Your task to perform on an android device: make emails show in primary in the gmail app Image 0: 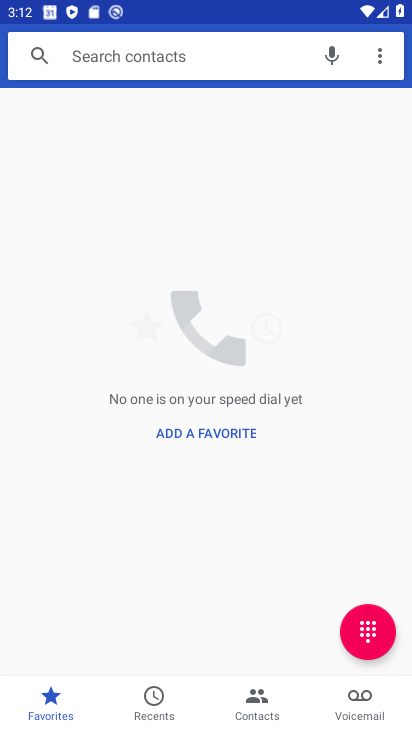
Step 0: press home button
Your task to perform on an android device: make emails show in primary in the gmail app Image 1: 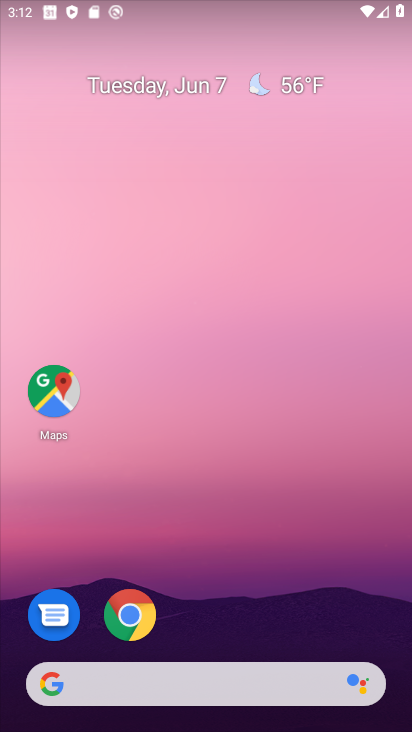
Step 1: drag from (137, 642) to (137, 239)
Your task to perform on an android device: make emails show in primary in the gmail app Image 2: 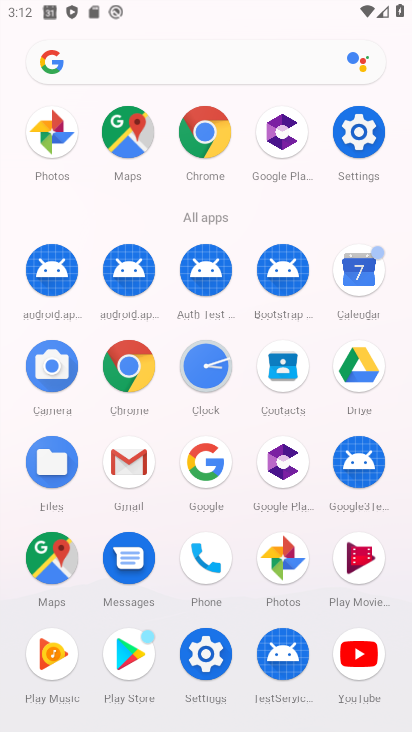
Step 2: click (119, 471)
Your task to perform on an android device: make emails show in primary in the gmail app Image 3: 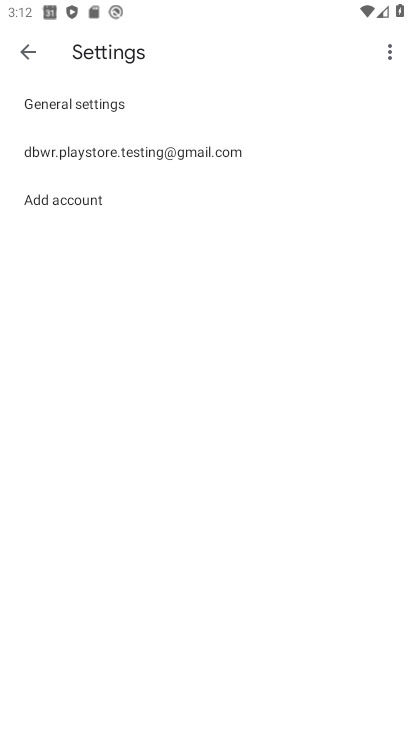
Step 3: click (59, 152)
Your task to perform on an android device: make emails show in primary in the gmail app Image 4: 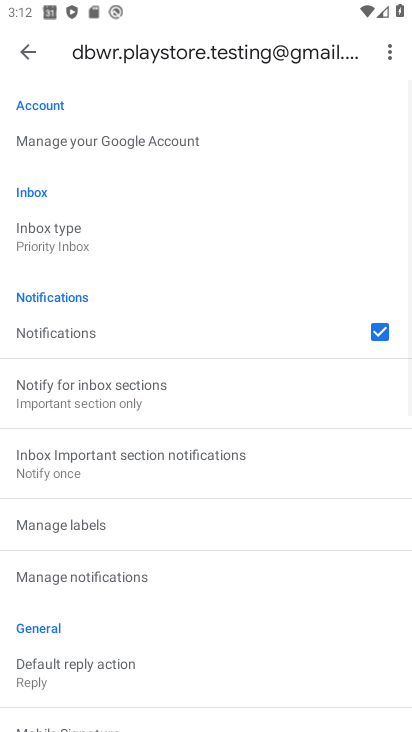
Step 4: click (46, 241)
Your task to perform on an android device: make emails show in primary in the gmail app Image 5: 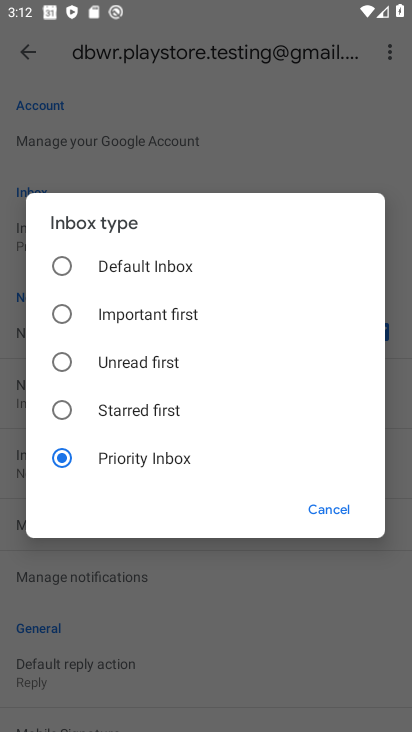
Step 5: click (126, 256)
Your task to perform on an android device: make emails show in primary in the gmail app Image 6: 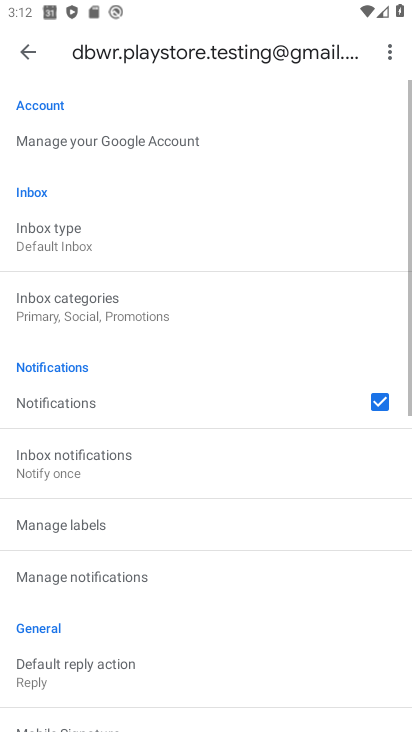
Step 6: click (90, 319)
Your task to perform on an android device: make emails show in primary in the gmail app Image 7: 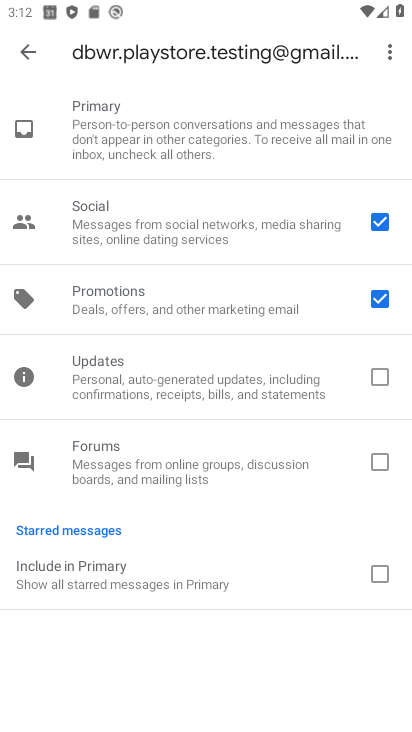
Step 7: click (374, 300)
Your task to perform on an android device: make emails show in primary in the gmail app Image 8: 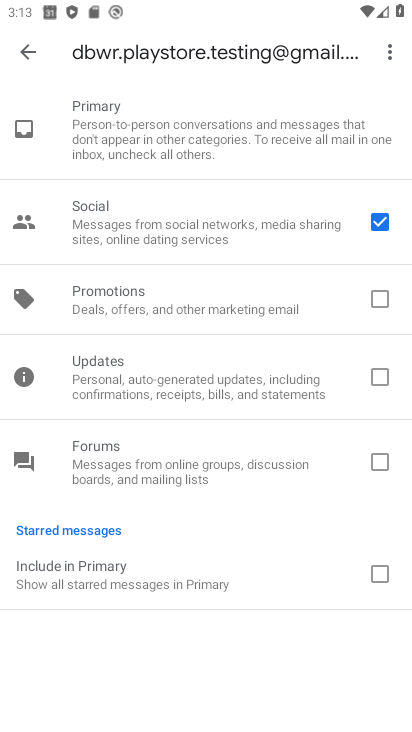
Step 8: click (383, 222)
Your task to perform on an android device: make emails show in primary in the gmail app Image 9: 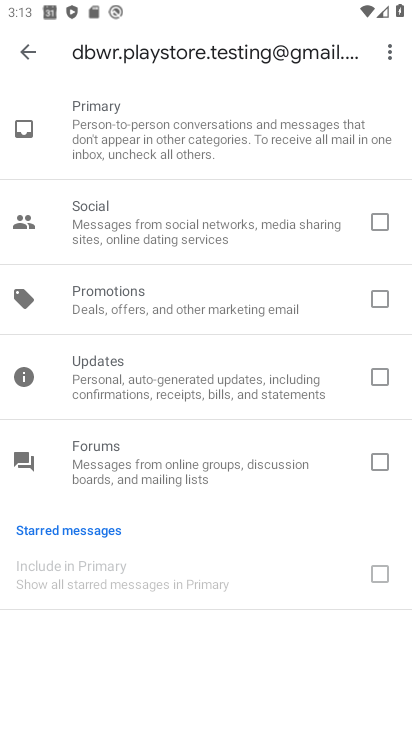
Step 9: click (30, 57)
Your task to perform on an android device: make emails show in primary in the gmail app Image 10: 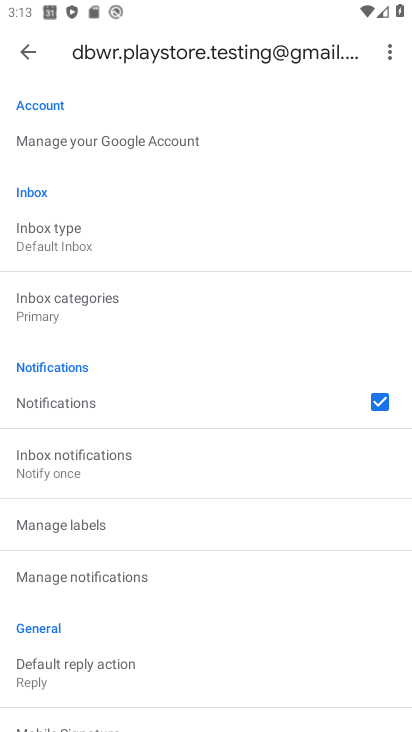
Step 10: task complete